Your task to perform on an android device: find snoozed emails in the gmail app Image 0: 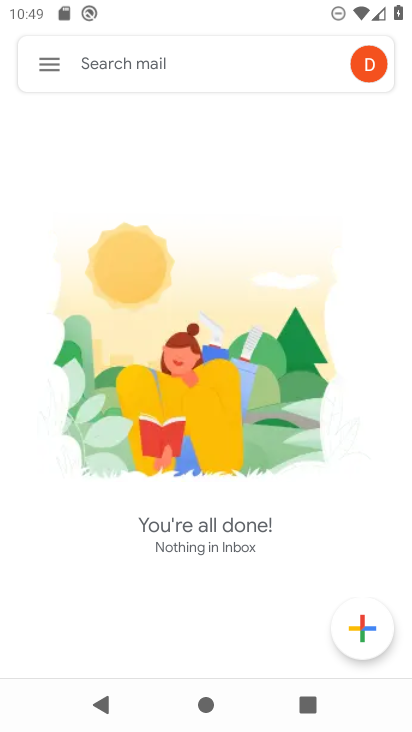
Step 0: press home button
Your task to perform on an android device: find snoozed emails in the gmail app Image 1: 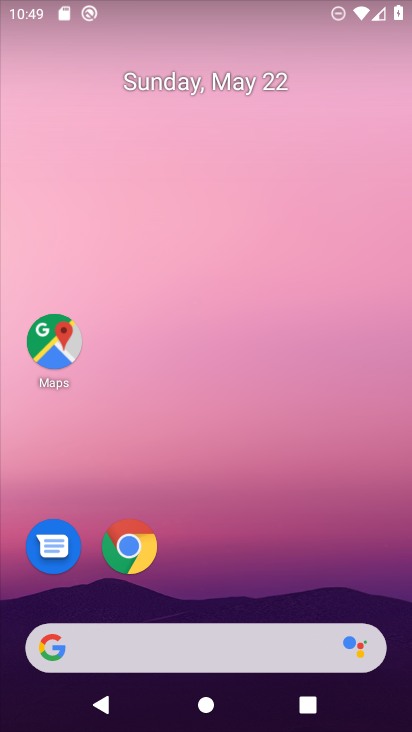
Step 1: drag from (217, 624) to (231, 140)
Your task to perform on an android device: find snoozed emails in the gmail app Image 2: 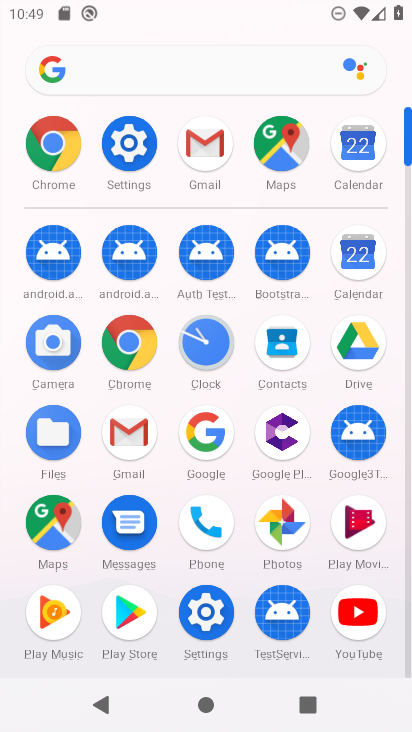
Step 2: click (132, 454)
Your task to perform on an android device: find snoozed emails in the gmail app Image 3: 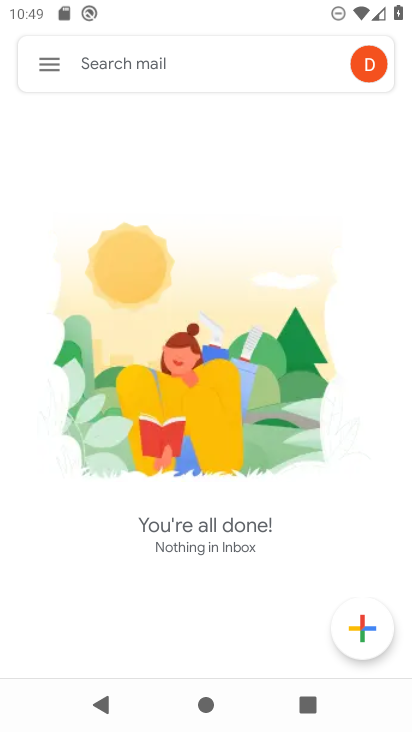
Step 3: click (41, 61)
Your task to perform on an android device: find snoozed emails in the gmail app Image 4: 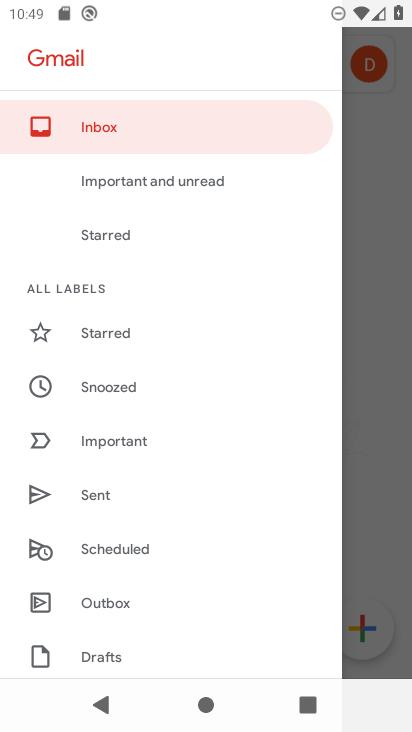
Step 4: click (111, 390)
Your task to perform on an android device: find snoozed emails in the gmail app Image 5: 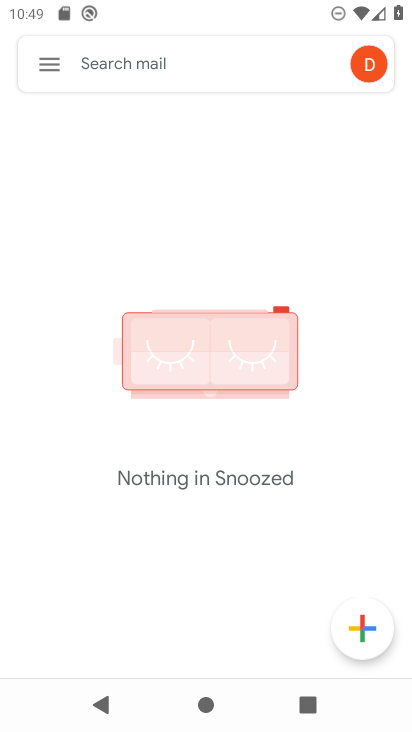
Step 5: task complete